Your task to perform on an android device: toggle improve location accuracy Image 0: 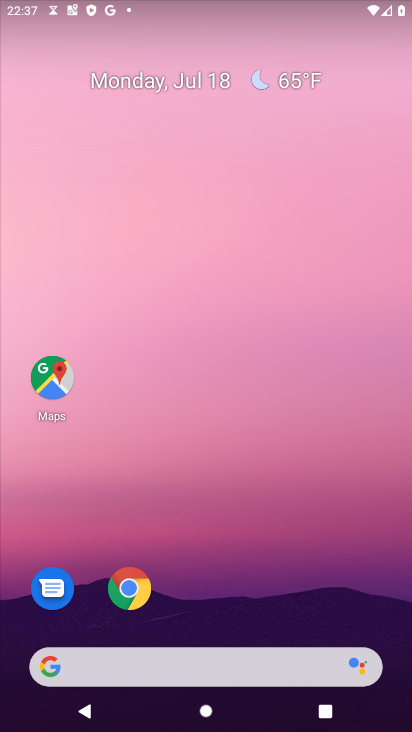
Step 0: drag from (200, 674) to (309, 115)
Your task to perform on an android device: toggle improve location accuracy Image 1: 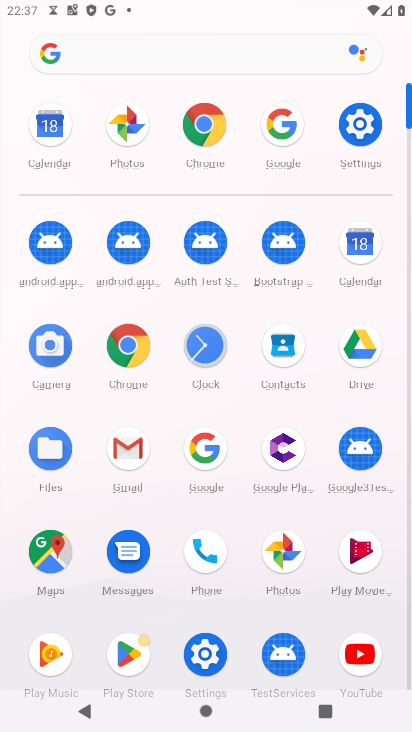
Step 1: click (361, 122)
Your task to perform on an android device: toggle improve location accuracy Image 2: 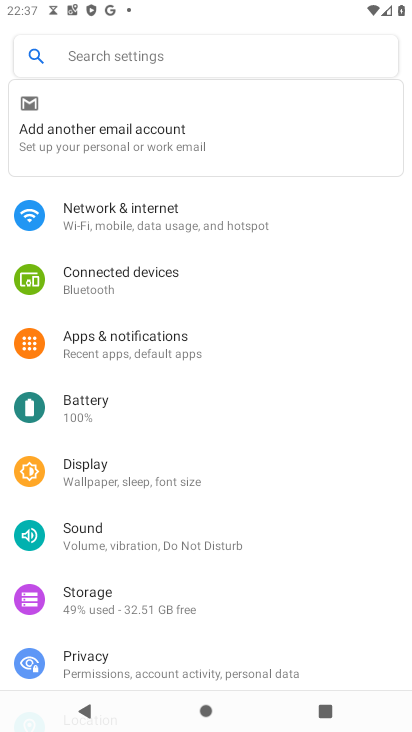
Step 2: drag from (150, 573) to (180, 471)
Your task to perform on an android device: toggle improve location accuracy Image 3: 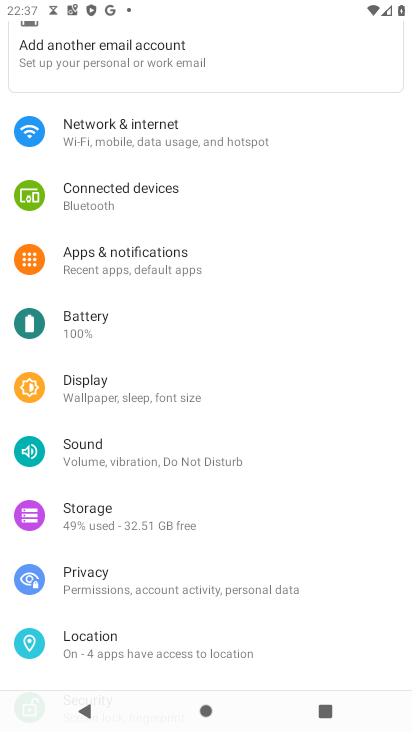
Step 3: drag from (116, 596) to (199, 480)
Your task to perform on an android device: toggle improve location accuracy Image 4: 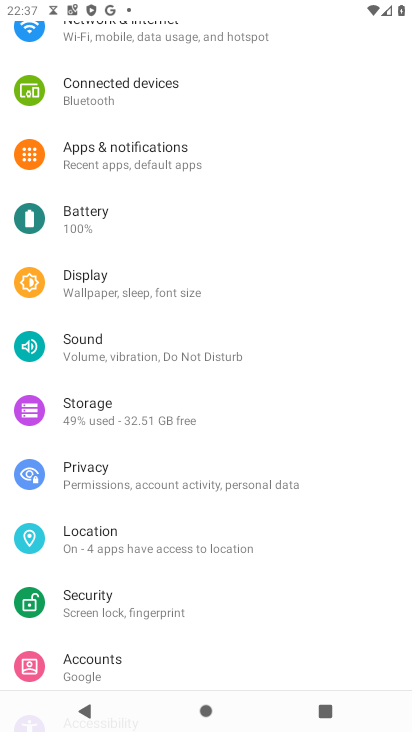
Step 4: click (114, 547)
Your task to perform on an android device: toggle improve location accuracy Image 5: 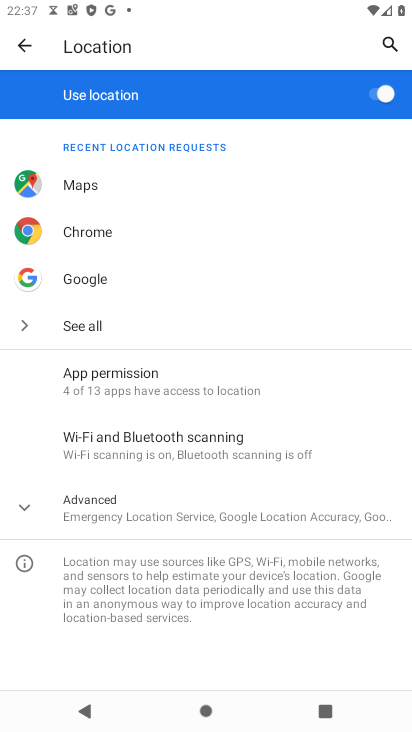
Step 5: click (197, 515)
Your task to perform on an android device: toggle improve location accuracy Image 6: 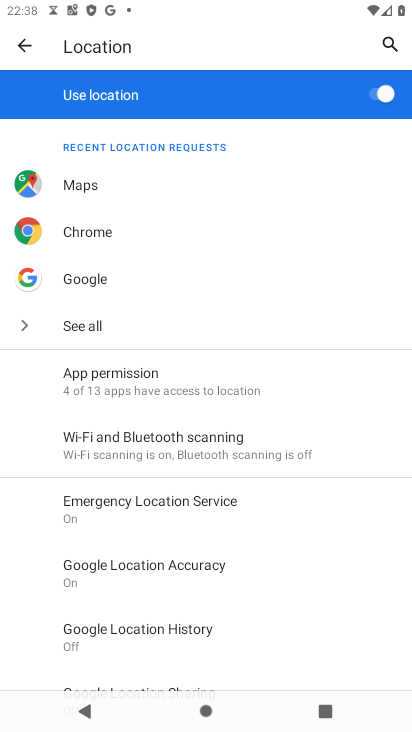
Step 6: click (179, 571)
Your task to perform on an android device: toggle improve location accuracy Image 7: 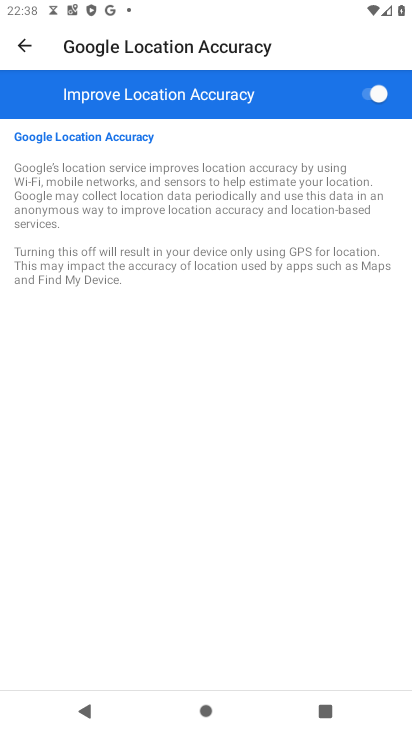
Step 7: click (369, 94)
Your task to perform on an android device: toggle improve location accuracy Image 8: 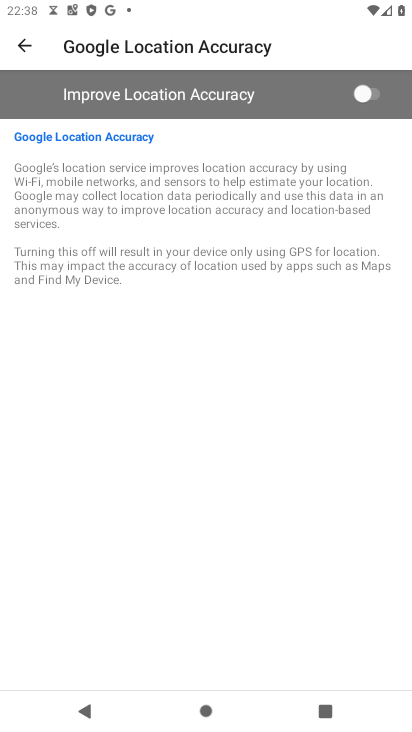
Step 8: task complete